Your task to perform on an android device: turn on wifi Image 0: 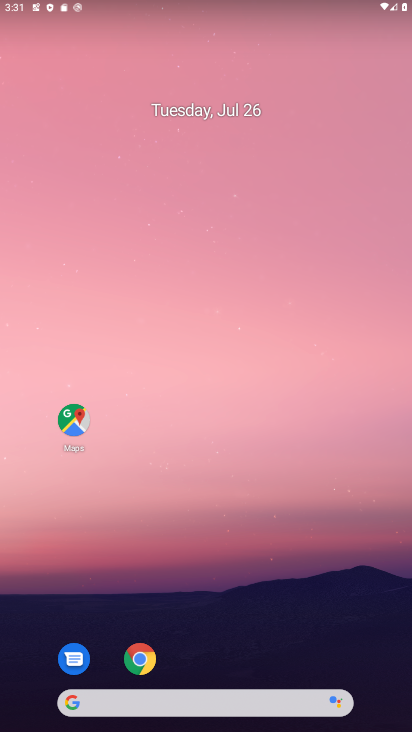
Step 0: drag from (315, 640) to (298, 239)
Your task to perform on an android device: turn on wifi Image 1: 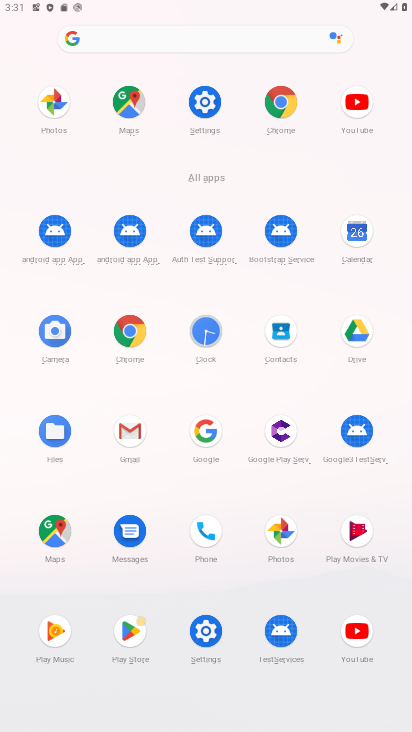
Step 1: drag from (253, 600) to (231, 17)
Your task to perform on an android device: turn on wifi Image 2: 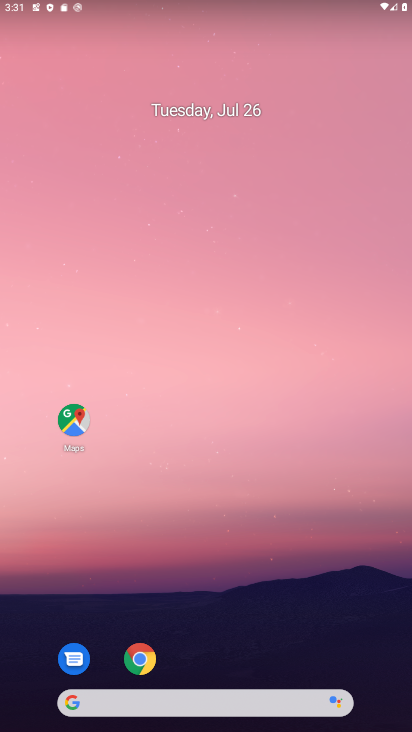
Step 2: drag from (264, 580) to (267, 0)
Your task to perform on an android device: turn on wifi Image 3: 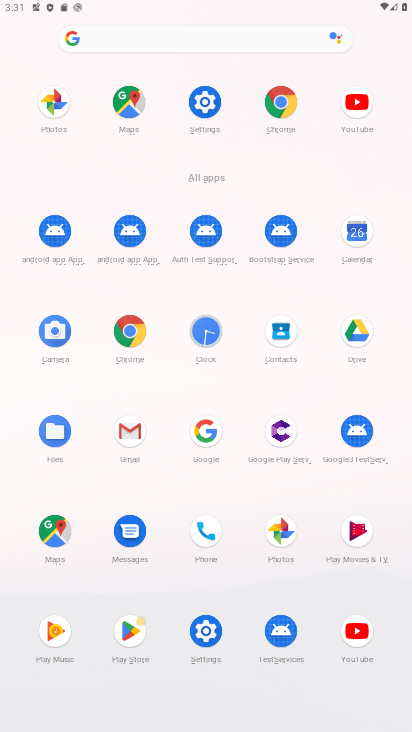
Step 3: click (210, 111)
Your task to perform on an android device: turn on wifi Image 4: 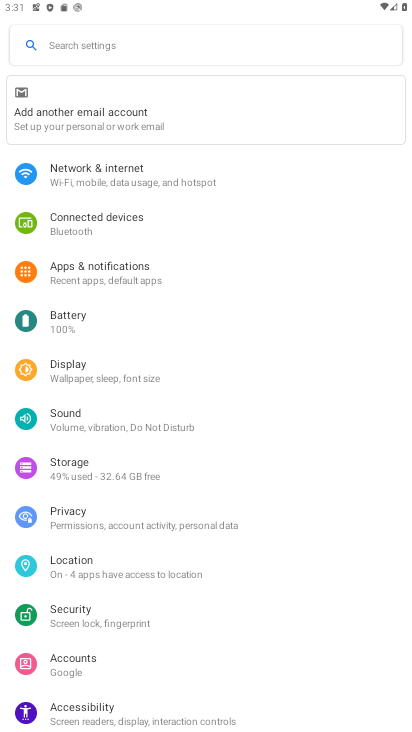
Step 4: click (150, 167)
Your task to perform on an android device: turn on wifi Image 5: 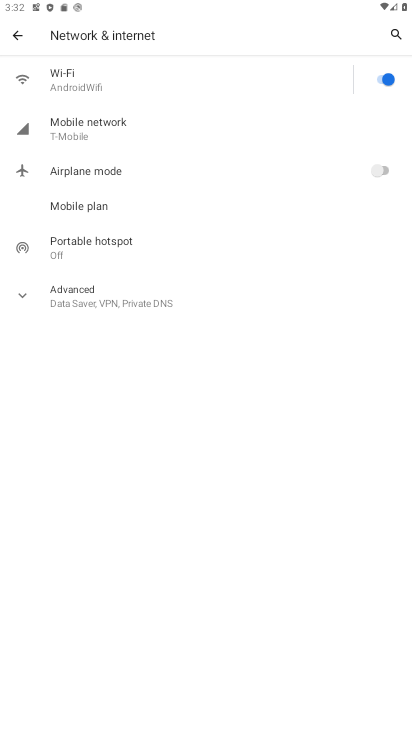
Step 5: task complete